Your task to perform on an android device: Search for acer predator on target, select the first entry, and add it to the cart. Image 0: 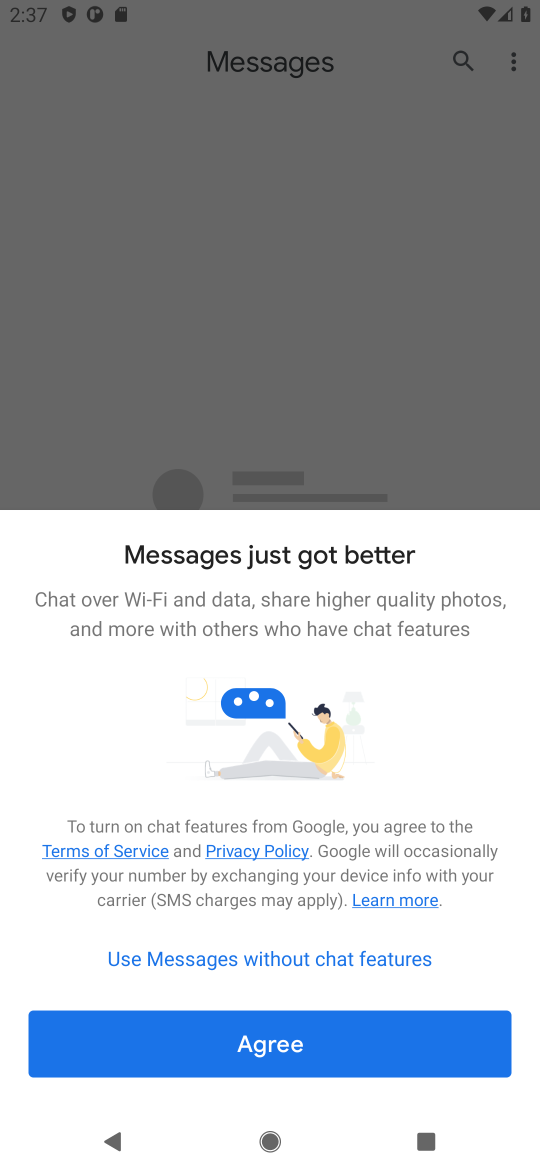
Step 0: press home button
Your task to perform on an android device: Search for acer predator on target, select the first entry, and add it to the cart. Image 1: 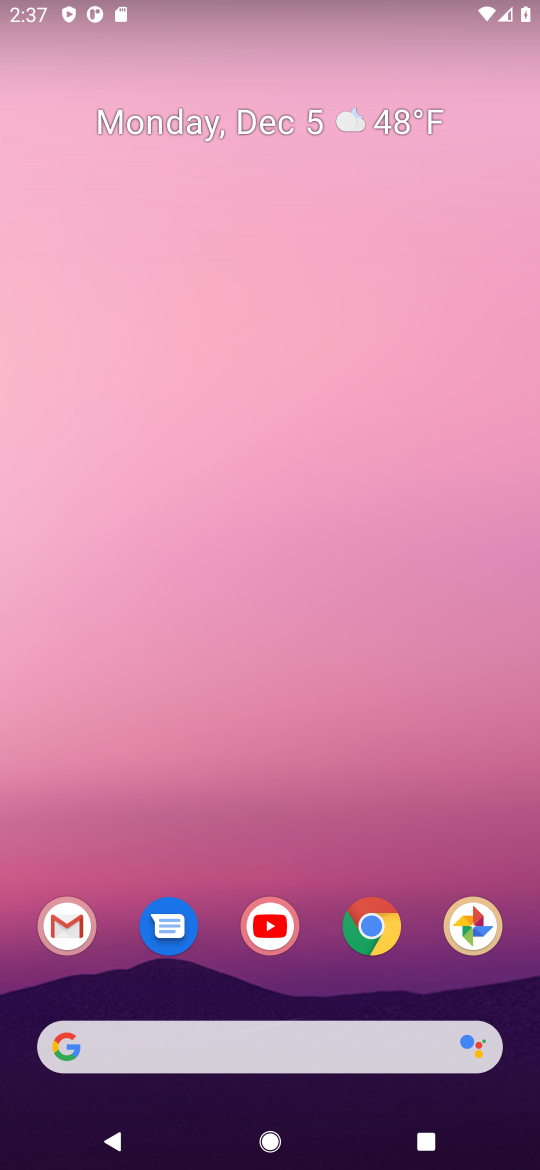
Step 1: click (378, 923)
Your task to perform on an android device: Search for acer predator on target, select the first entry, and add it to the cart. Image 2: 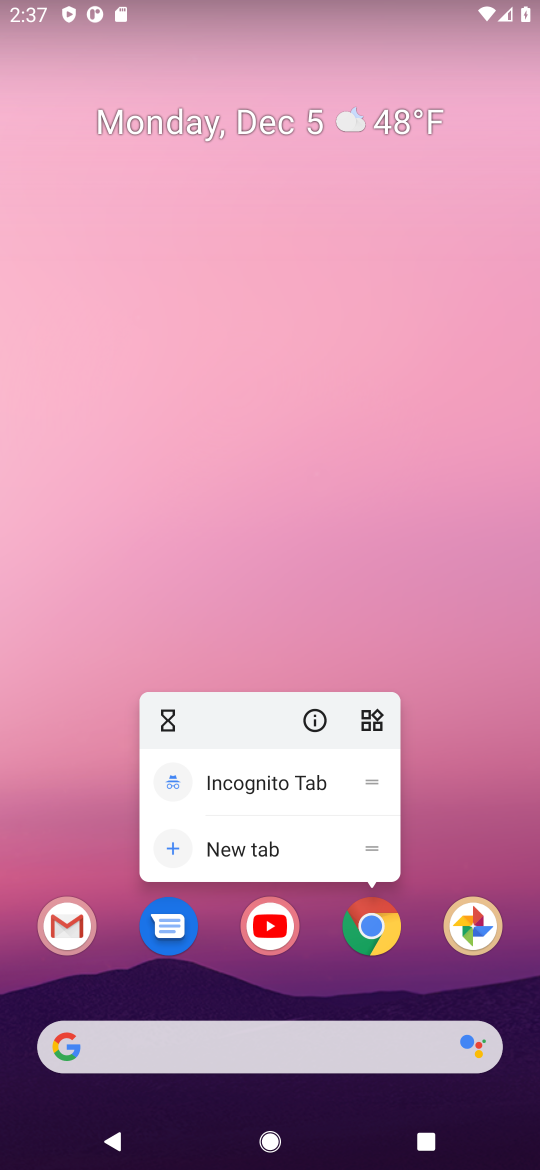
Step 2: click (383, 932)
Your task to perform on an android device: Search for acer predator on target, select the first entry, and add it to the cart. Image 3: 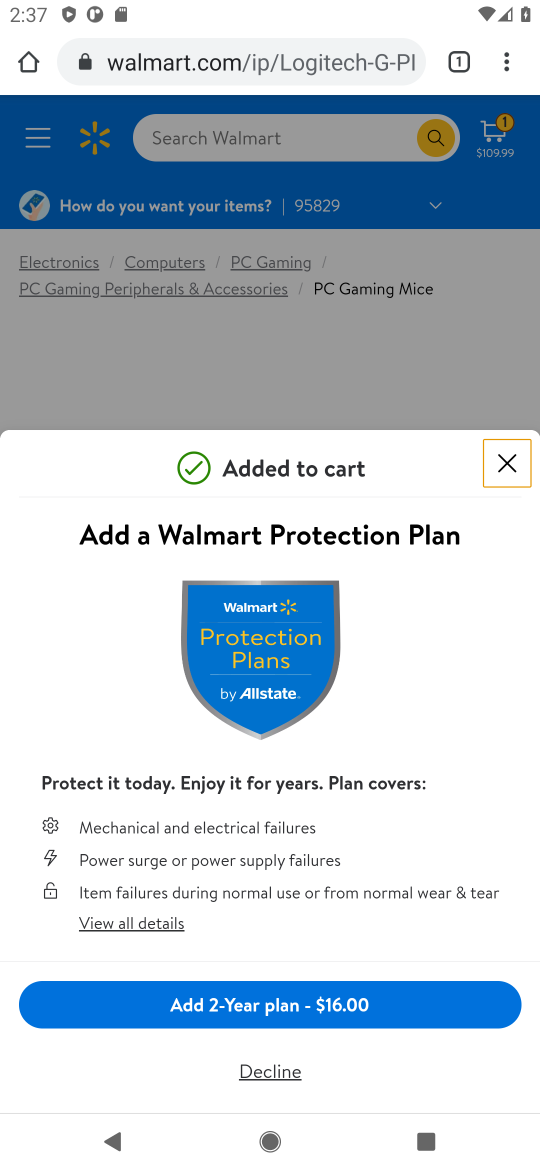
Step 3: click (321, 54)
Your task to perform on an android device: Search for acer predator on target, select the first entry, and add it to the cart. Image 4: 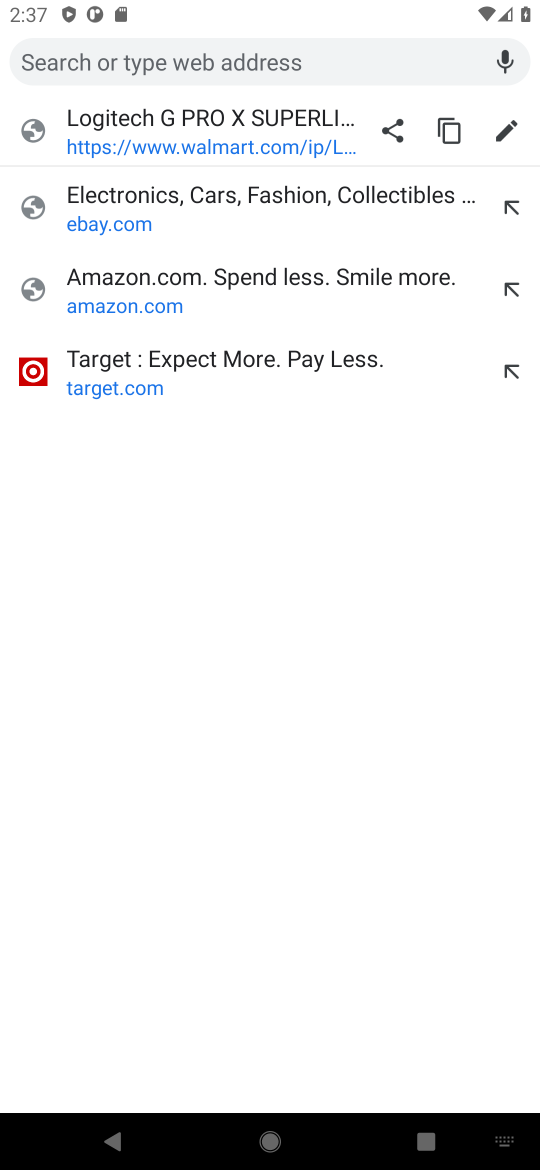
Step 4: click (146, 363)
Your task to perform on an android device: Search for acer predator on target, select the first entry, and add it to the cart. Image 5: 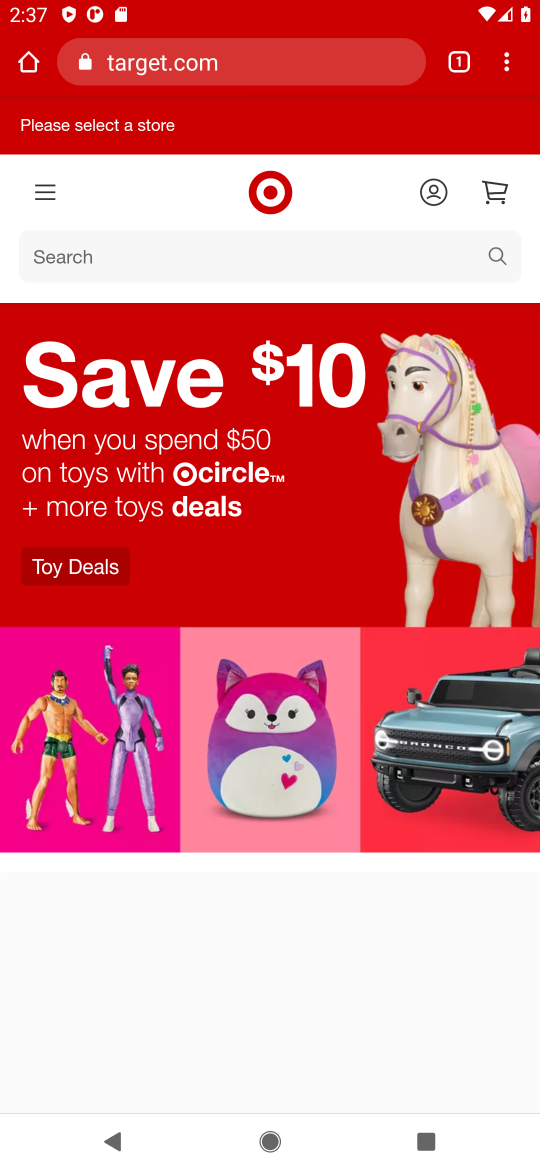
Step 5: click (485, 248)
Your task to perform on an android device: Search for acer predator on target, select the first entry, and add it to the cart. Image 6: 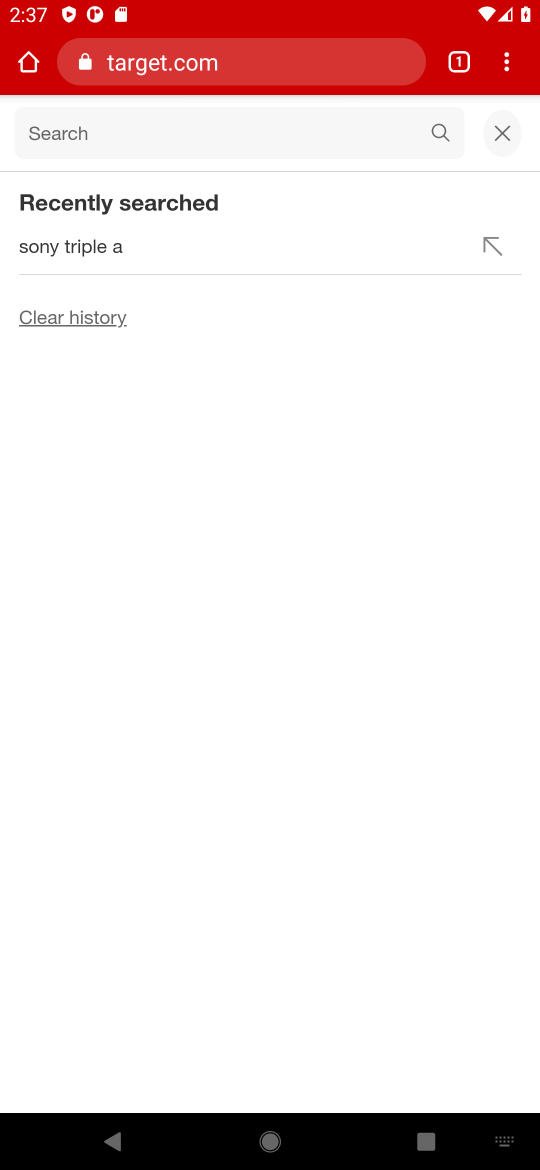
Step 6: type "acer predator"
Your task to perform on an android device: Search for acer predator on target, select the first entry, and add it to the cart. Image 7: 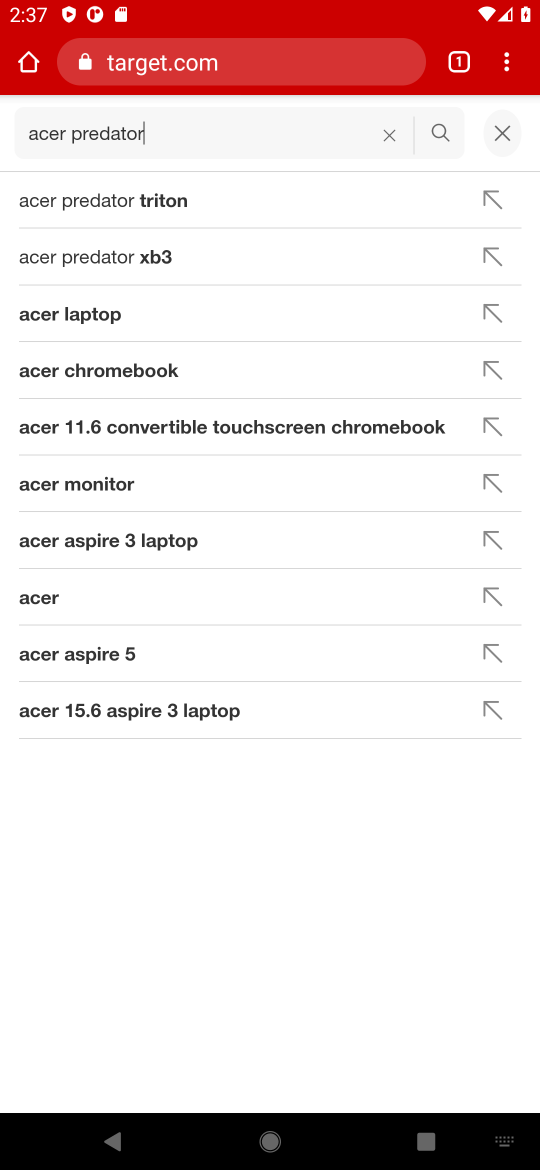
Step 7: press enter
Your task to perform on an android device: Search for acer predator on target, select the first entry, and add it to the cart. Image 8: 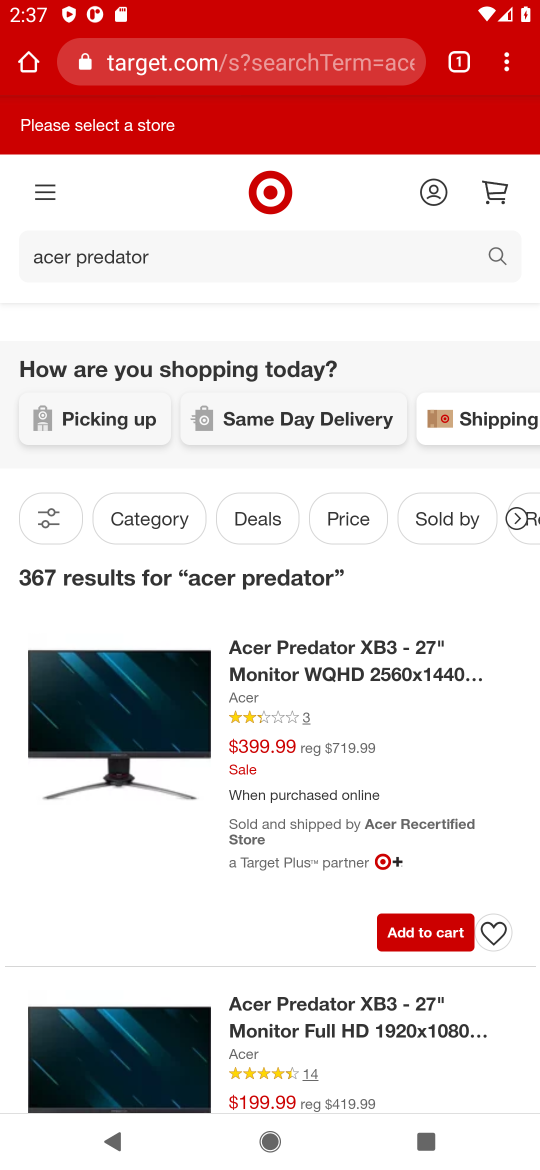
Step 8: click (141, 713)
Your task to perform on an android device: Search for acer predator on target, select the first entry, and add it to the cart. Image 9: 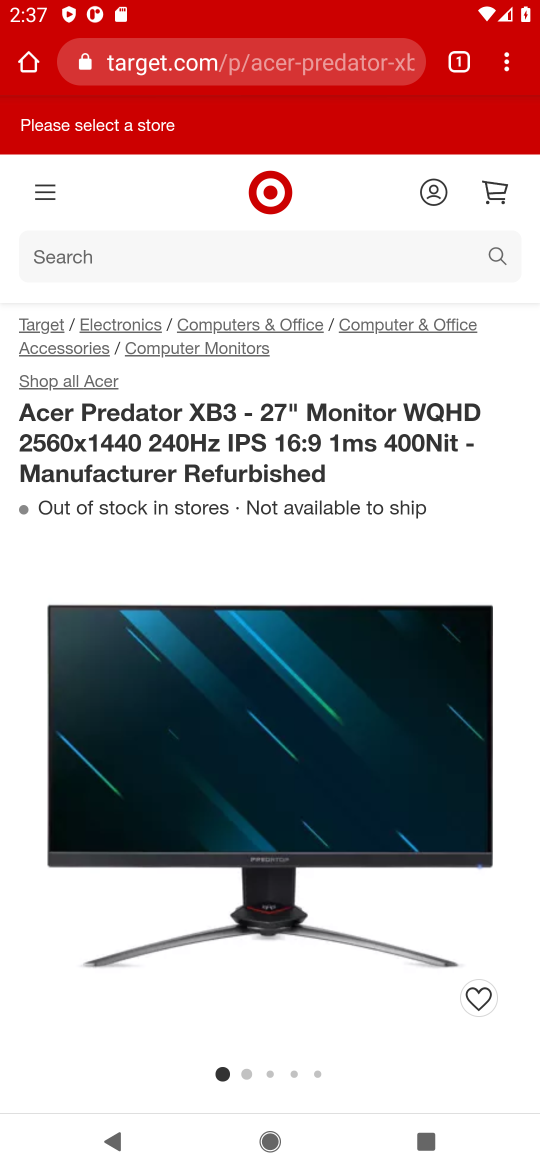
Step 9: drag from (279, 917) to (445, 273)
Your task to perform on an android device: Search for acer predator on target, select the first entry, and add it to the cart. Image 10: 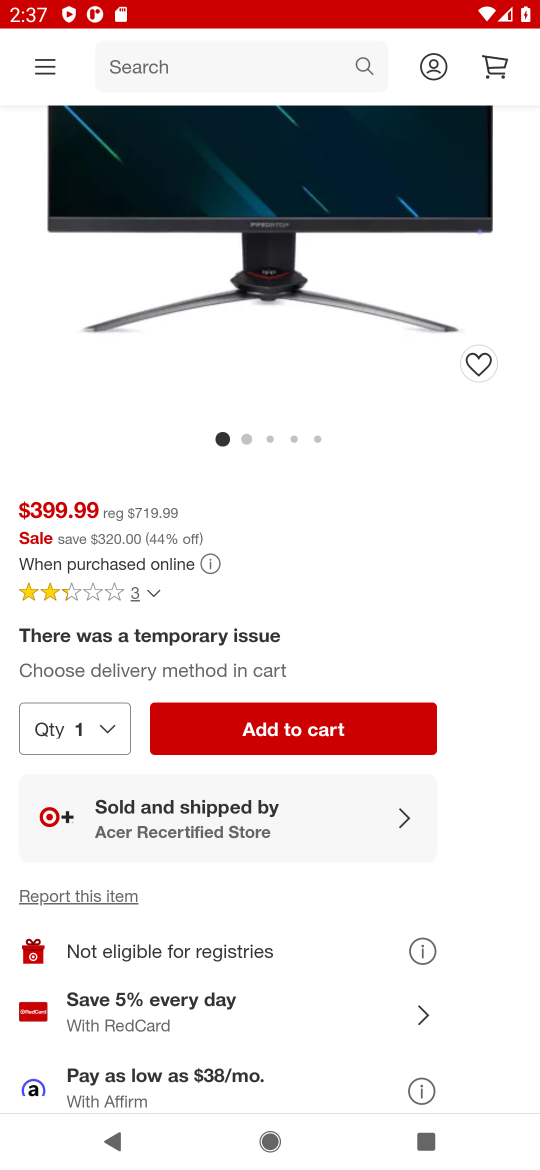
Step 10: click (316, 718)
Your task to perform on an android device: Search for acer predator on target, select the first entry, and add it to the cart. Image 11: 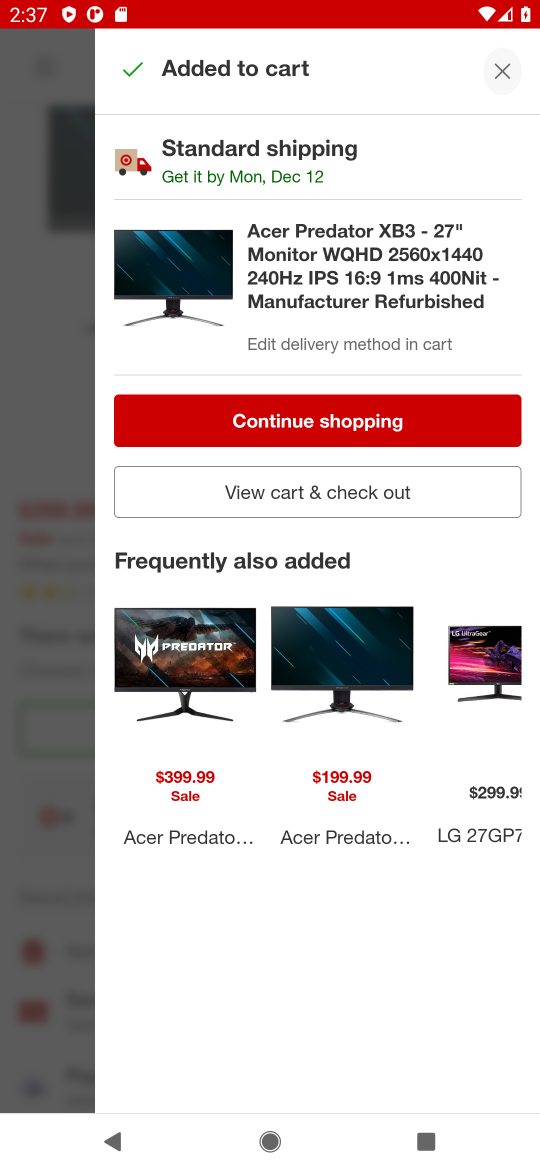
Step 11: task complete